Your task to perform on an android device: Open the web browser Image 0: 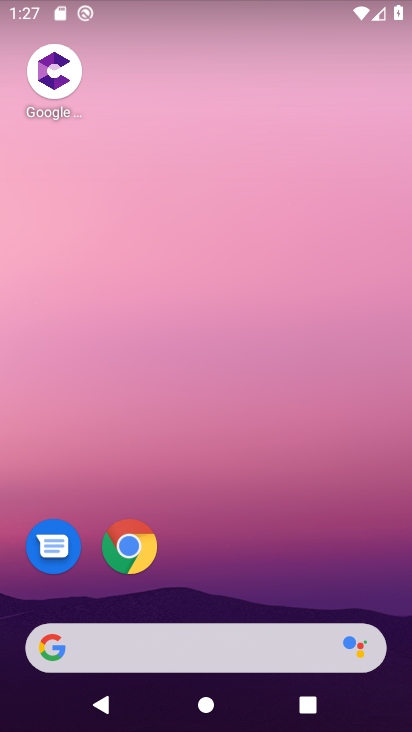
Step 0: drag from (162, 584) to (212, 130)
Your task to perform on an android device: Open the web browser Image 1: 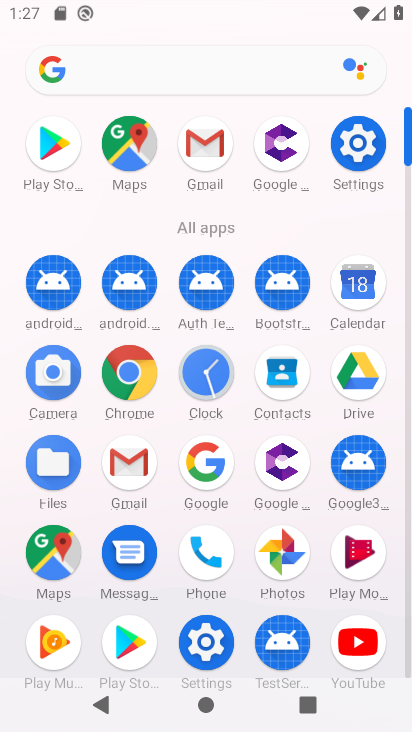
Step 1: click (126, 374)
Your task to perform on an android device: Open the web browser Image 2: 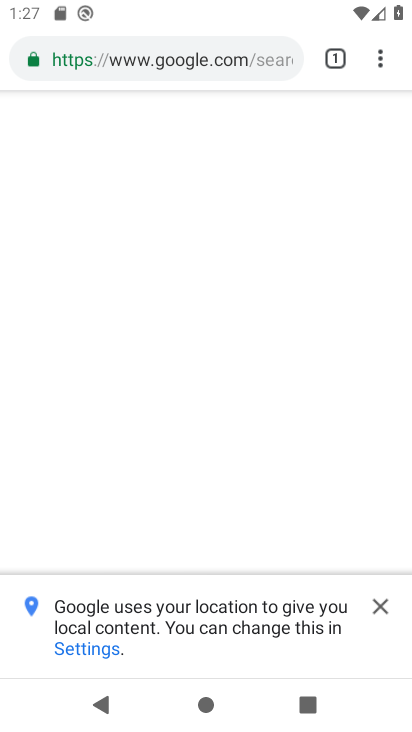
Step 2: click (159, 54)
Your task to perform on an android device: Open the web browser Image 3: 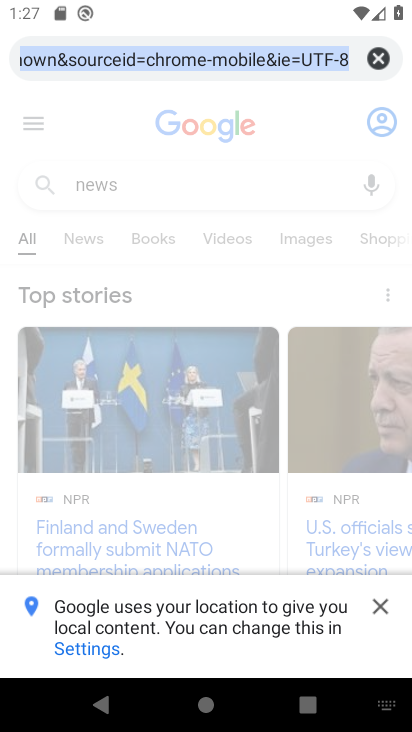
Step 3: task complete